Your task to perform on an android device: Is it going to rain this weekend? Image 0: 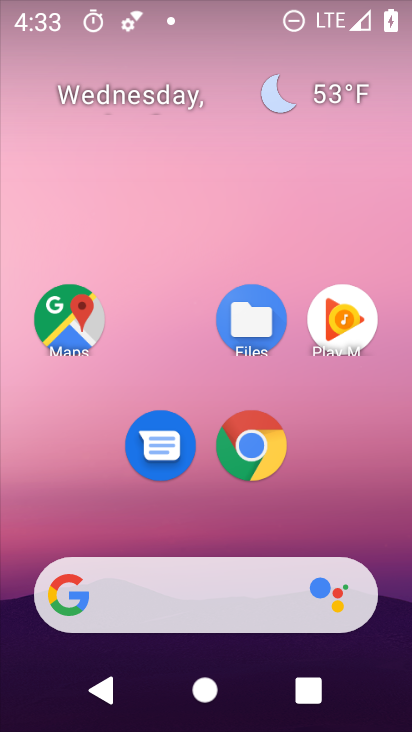
Step 0: click (201, 608)
Your task to perform on an android device: Is it going to rain this weekend? Image 1: 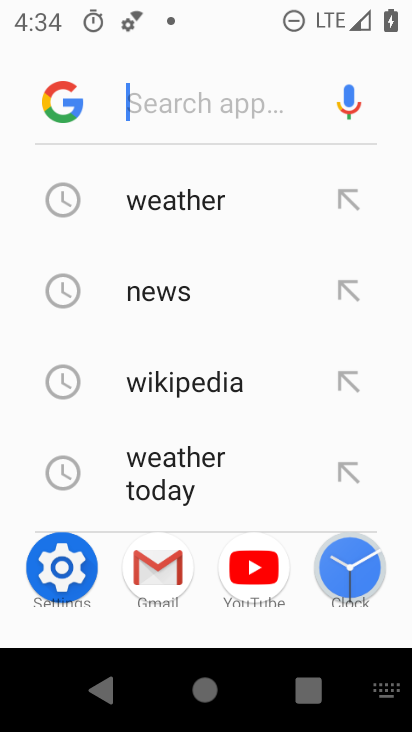
Step 1: click (177, 196)
Your task to perform on an android device: Is it going to rain this weekend? Image 2: 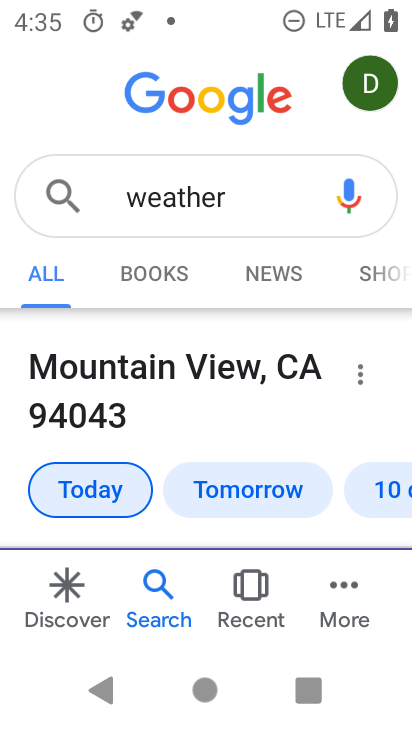
Step 2: click (372, 491)
Your task to perform on an android device: Is it going to rain this weekend? Image 3: 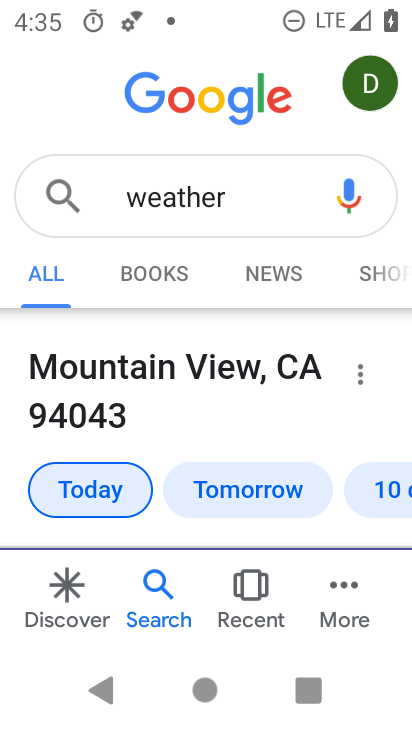
Step 3: drag from (314, 525) to (268, 168)
Your task to perform on an android device: Is it going to rain this weekend? Image 4: 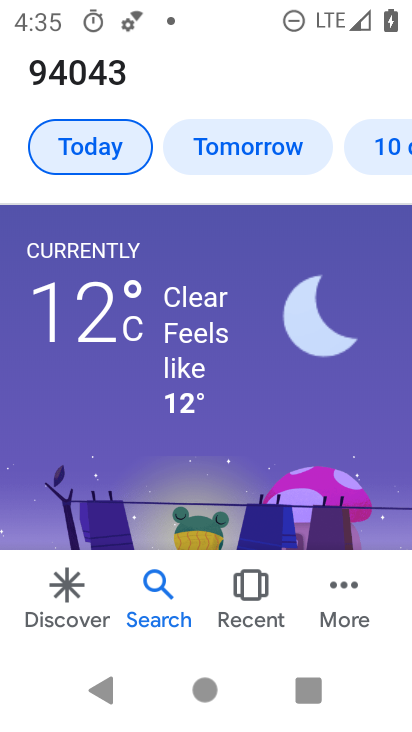
Step 4: click (388, 148)
Your task to perform on an android device: Is it going to rain this weekend? Image 5: 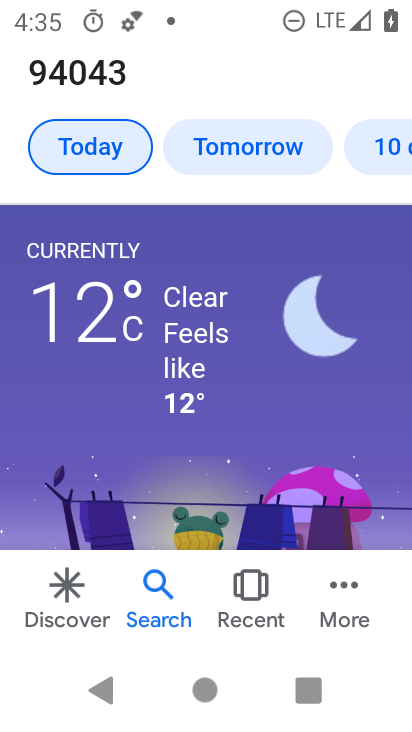
Step 5: click (388, 148)
Your task to perform on an android device: Is it going to rain this weekend? Image 6: 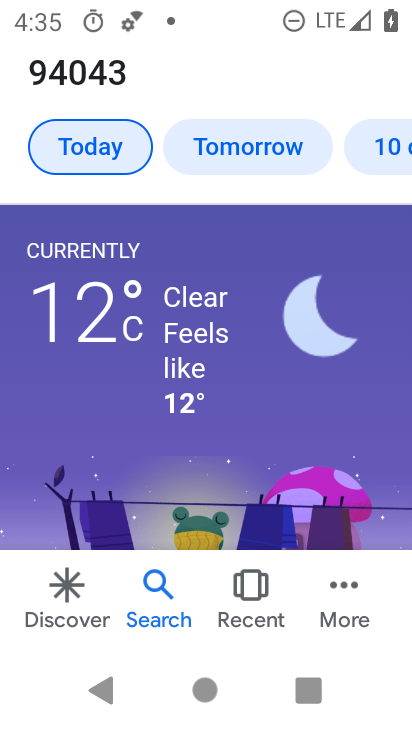
Step 6: click (388, 148)
Your task to perform on an android device: Is it going to rain this weekend? Image 7: 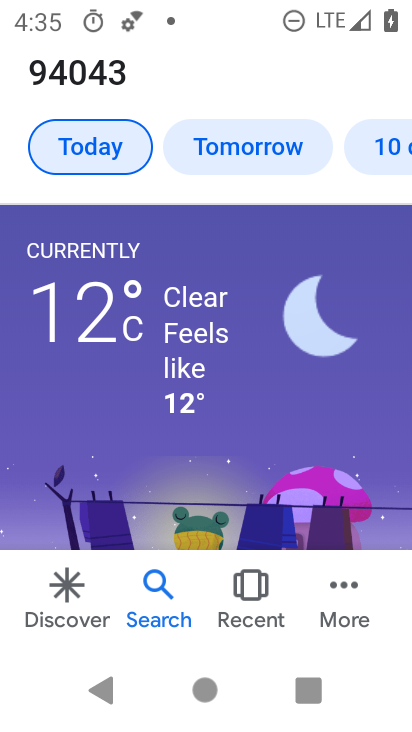
Step 7: task complete